Your task to perform on an android device: toggle sleep mode Image 0: 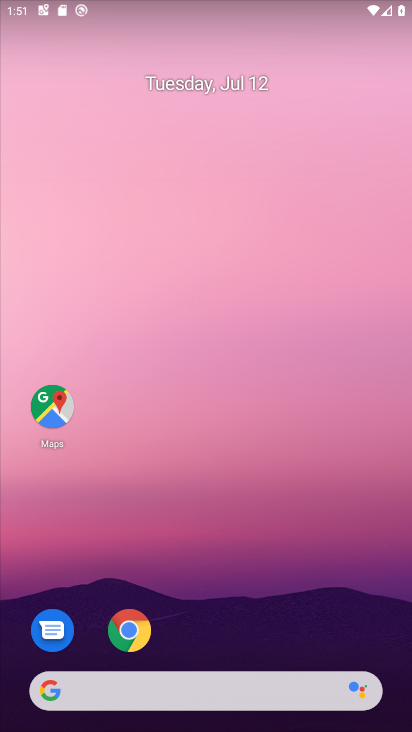
Step 0: drag from (215, 562) to (219, 139)
Your task to perform on an android device: toggle sleep mode Image 1: 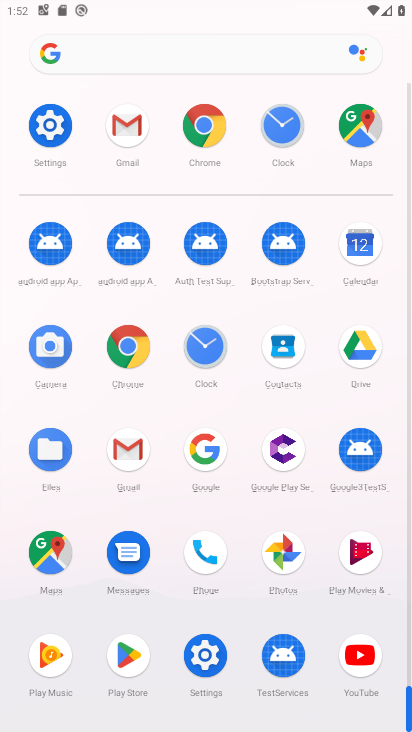
Step 1: click (63, 122)
Your task to perform on an android device: toggle sleep mode Image 2: 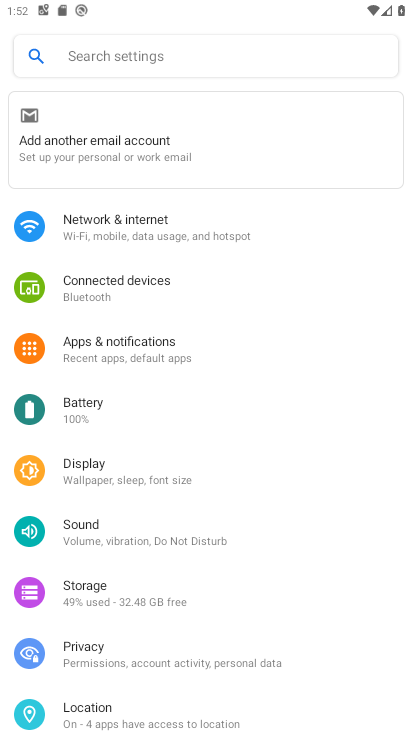
Step 2: click (110, 479)
Your task to perform on an android device: toggle sleep mode Image 3: 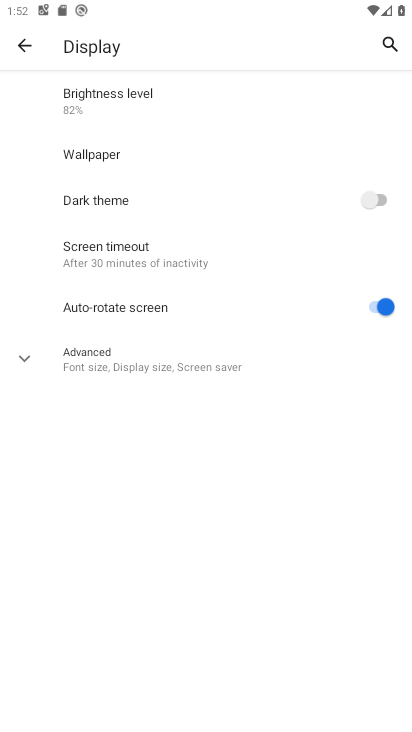
Step 3: click (119, 366)
Your task to perform on an android device: toggle sleep mode Image 4: 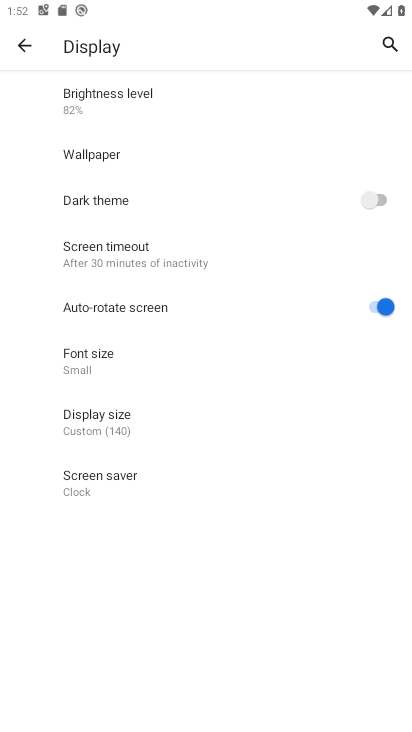
Step 4: task complete